Your task to perform on an android device: open app "Reddit" (install if not already installed) Image 0: 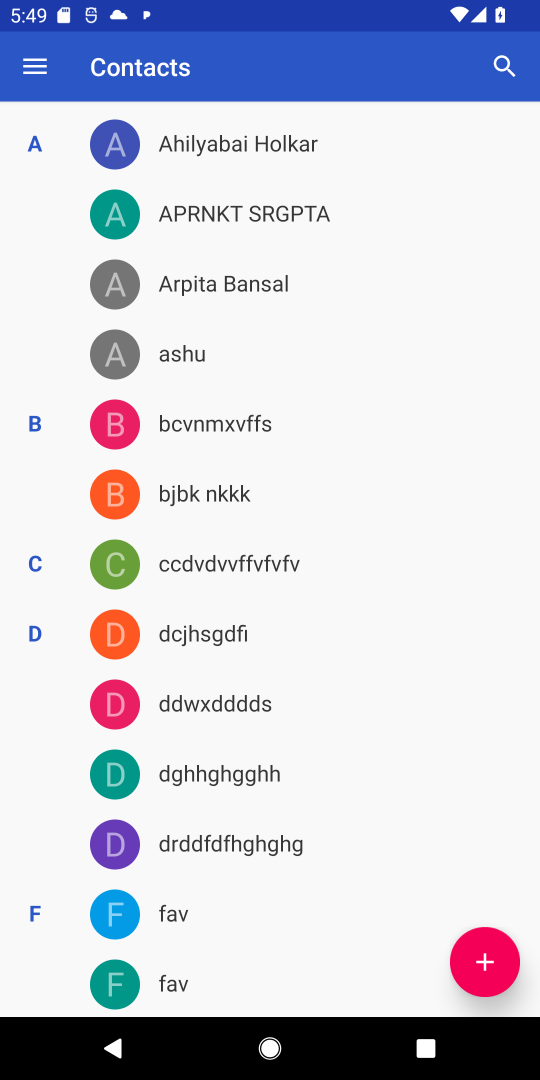
Step 0: press home button
Your task to perform on an android device: open app "Reddit" (install if not already installed) Image 1: 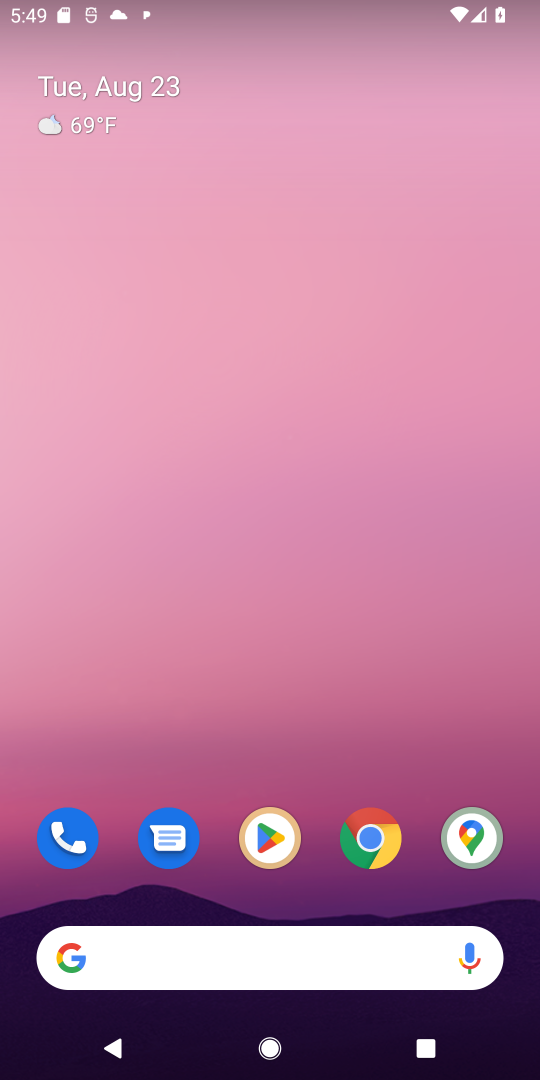
Step 1: click (272, 846)
Your task to perform on an android device: open app "Reddit" (install if not already installed) Image 2: 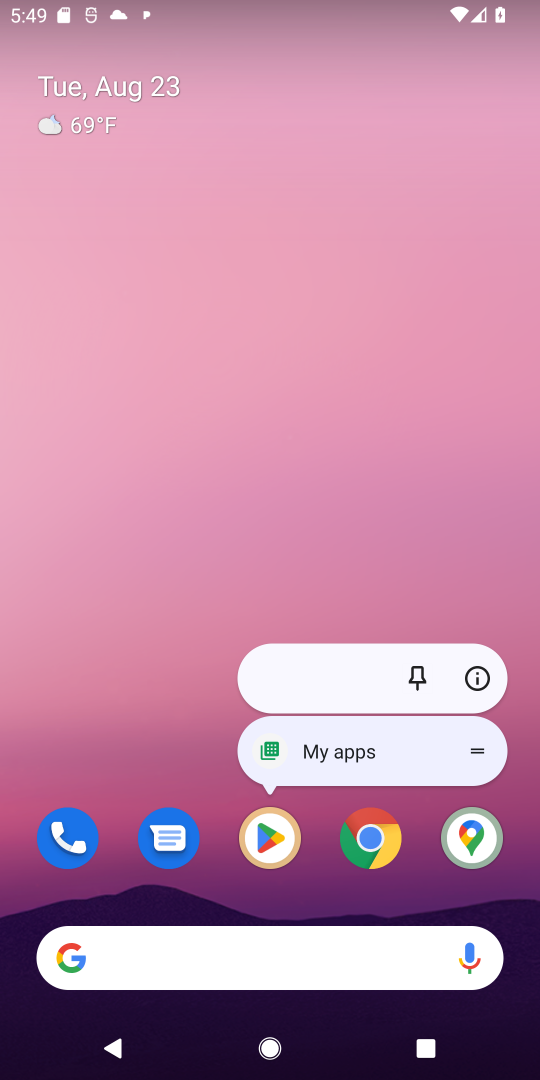
Step 2: click (269, 836)
Your task to perform on an android device: open app "Reddit" (install if not already installed) Image 3: 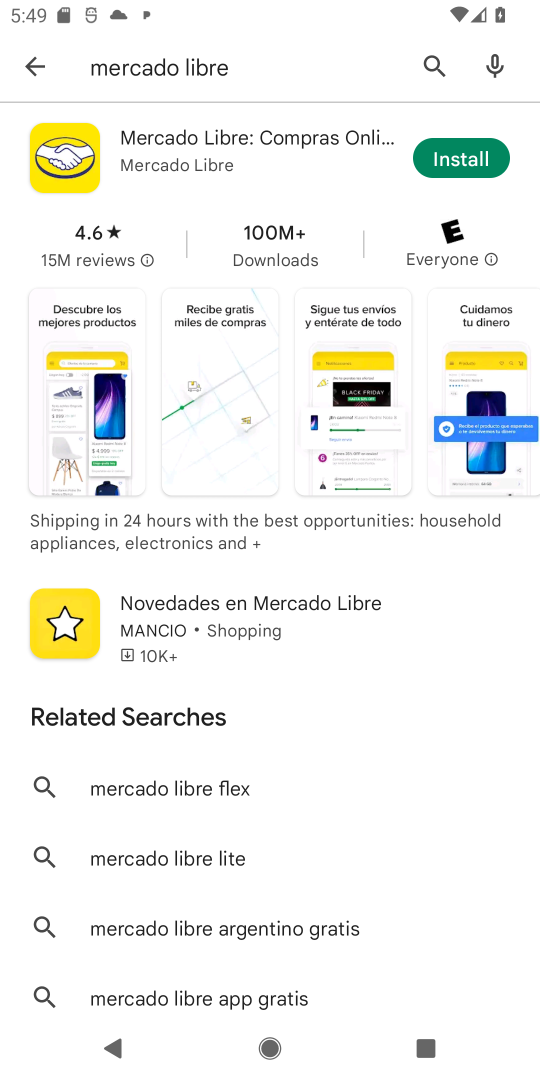
Step 3: click (429, 60)
Your task to perform on an android device: open app "Reddit" (install if not already installed) Image 4: 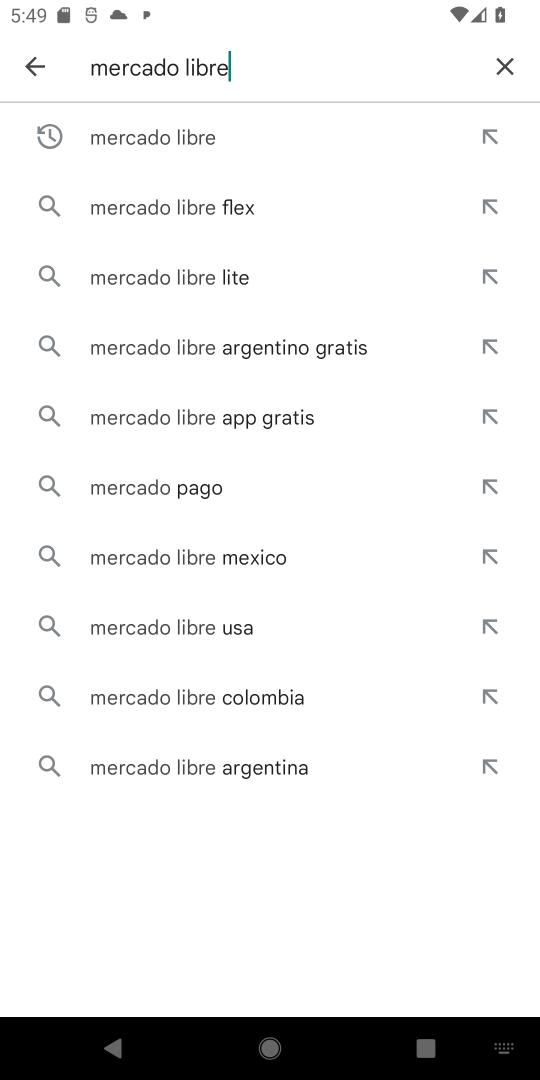
Step 4: click (501, 61)
Your task to perform on an android device: open app "Reddit" (install if not already installed) Image 5: 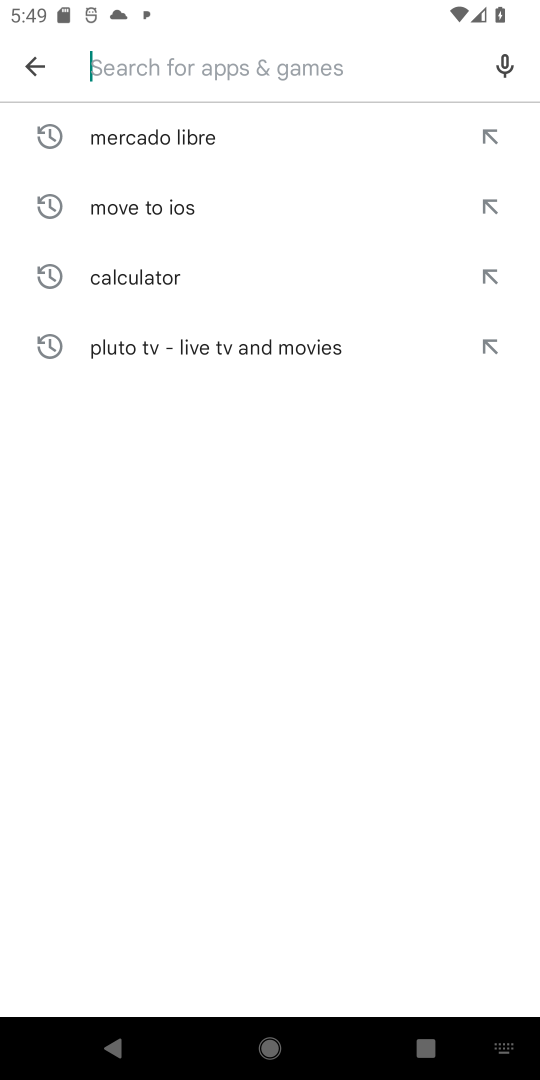
Step 5: type "Reddit"
Your task to perform on an android device: open app "Reddit" (install if not already installed) Image 6: 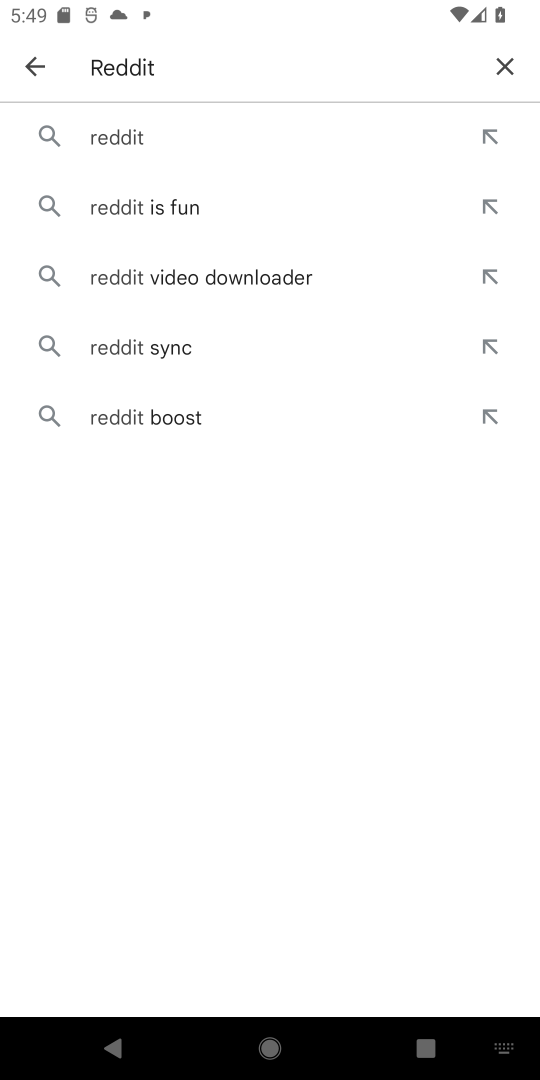
Step 6: click (129, 137)
Your task to perform on an android device: open app "Reddit" (install if not already installed) Image 7: 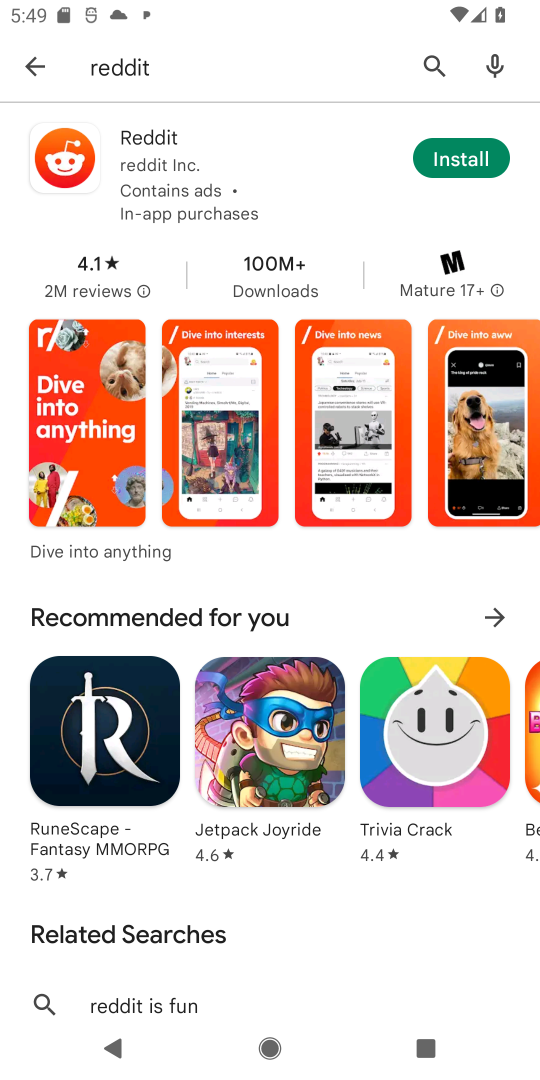
Step 7: click (449, 158)
Your task to perform on an android device: open app "Reddit" (install if not already installed) Image 8: 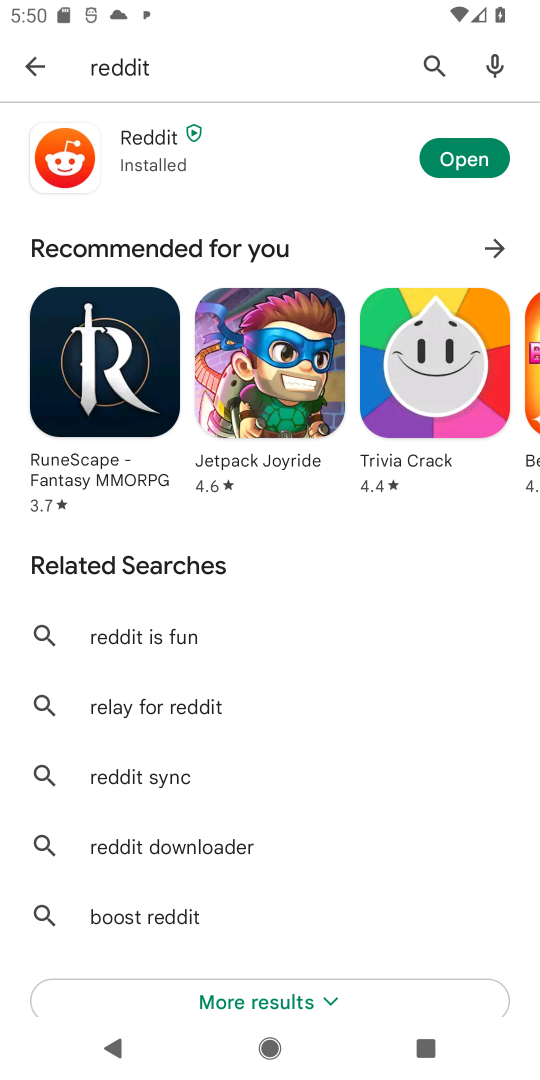
Step 8: click (468, 161)
Your task to perform on an android device: open app "Reddit" (install if not already installed) Image 9: 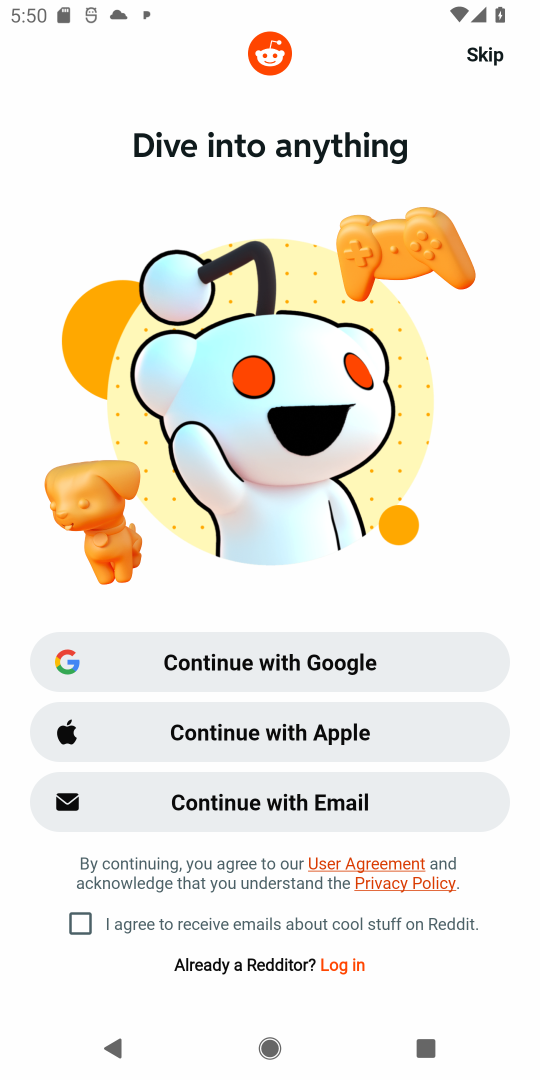
Step 9: task complete